Your task to perform on an android device: toggle notifications settings in the gmail app Image 0: 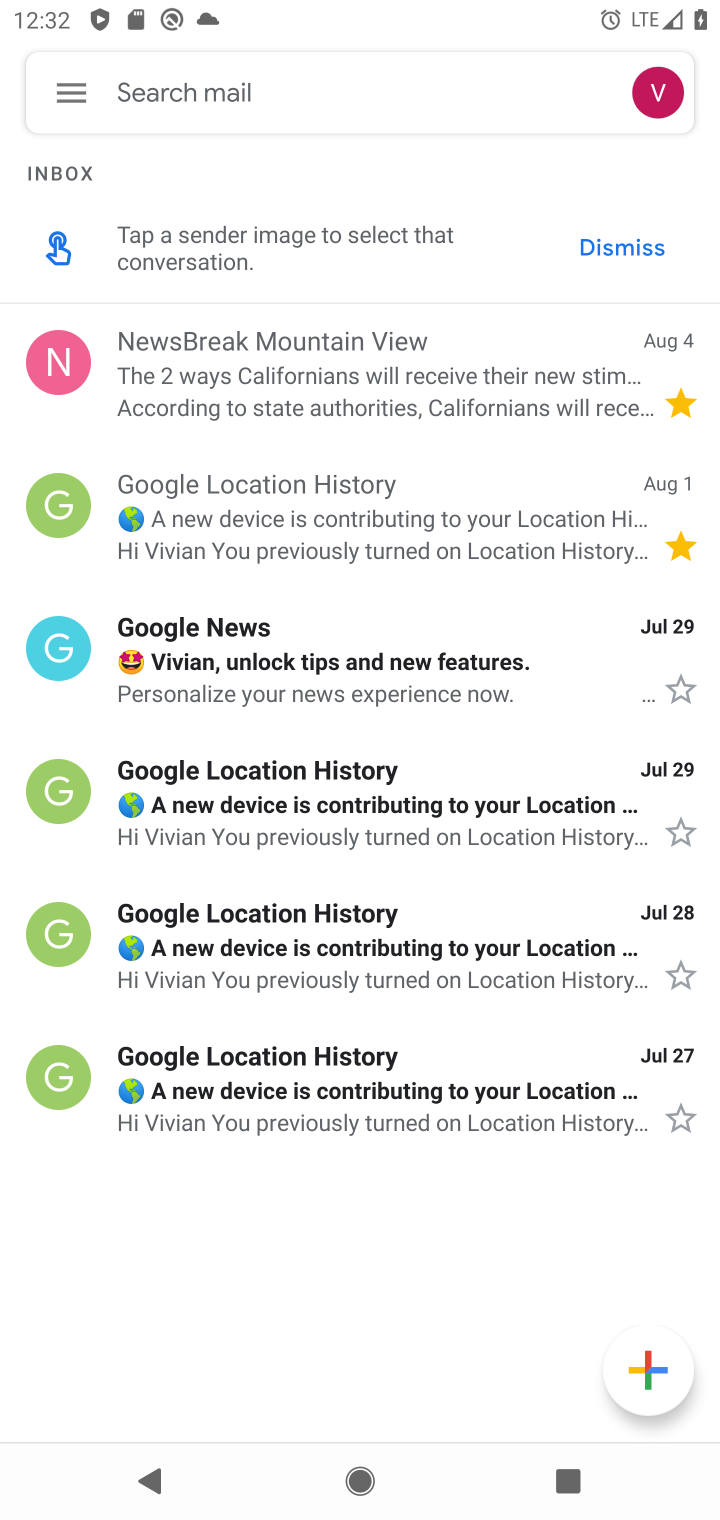
Step 0: press home button
Your task to perform on an android device: toggle notifications settings in the gmail app Image 1: 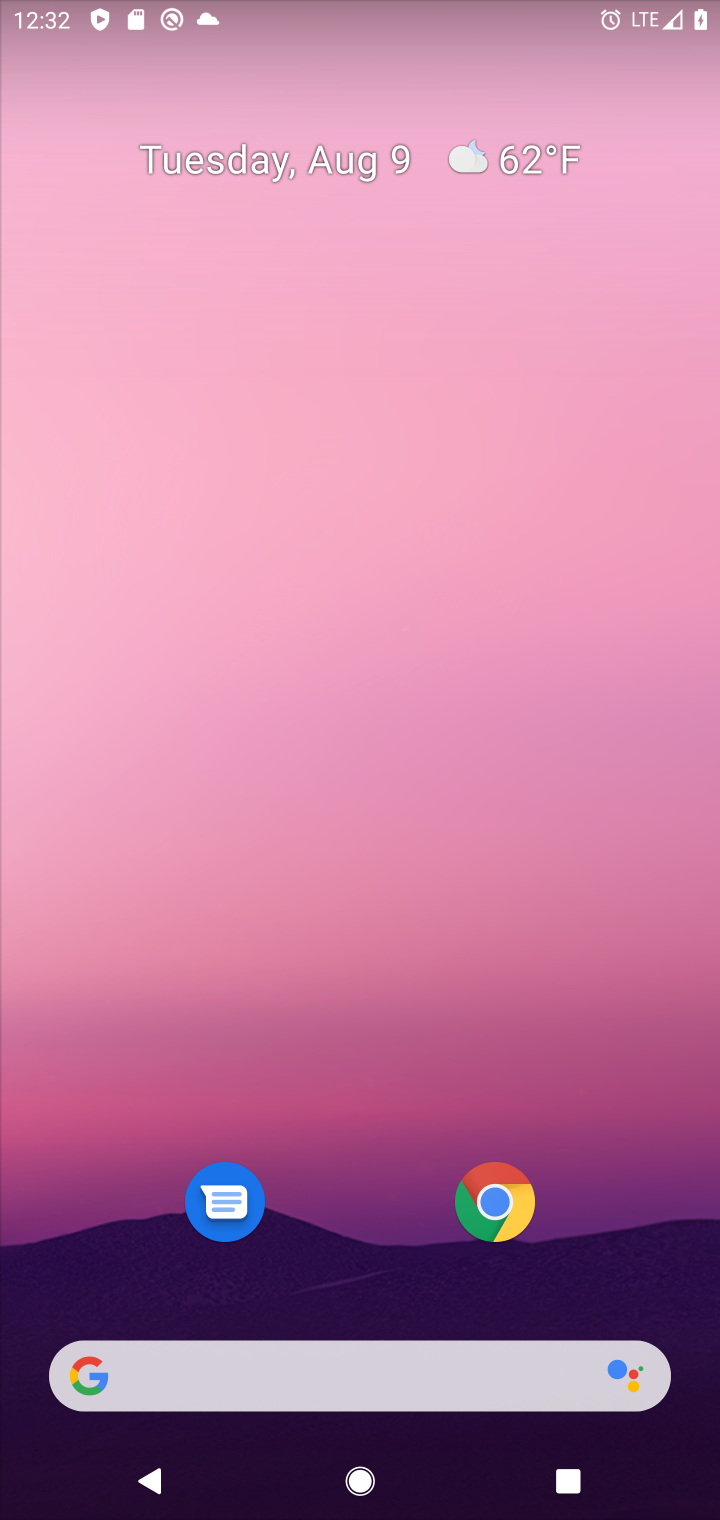
Step 1: click (499, 34)
Your task to perform on an android device: toggle notifications settings in the gmail app Image 2: 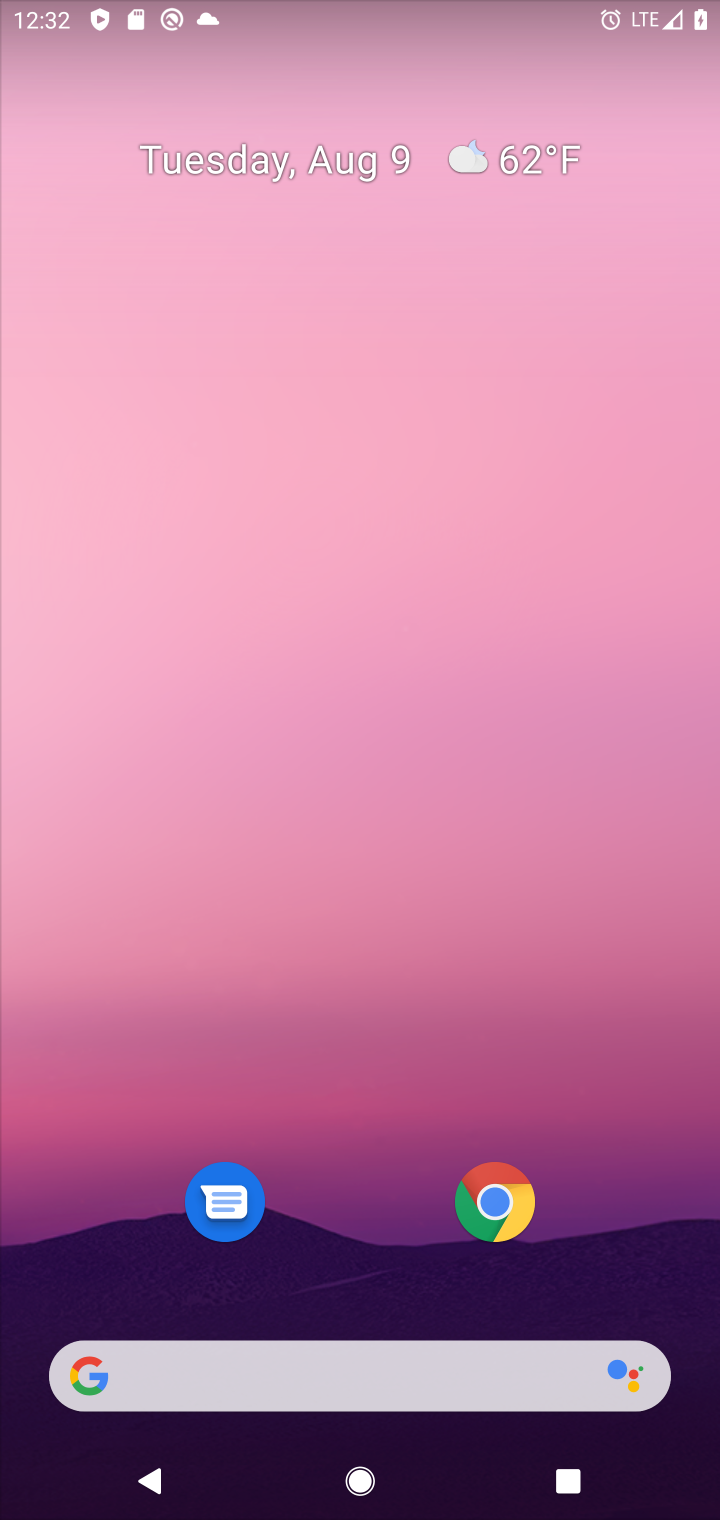
Step 2: drag from (323, 1285) to (408, 41)
Your task to perform on an android device: toggle notifications settings in the gmail app Image 3: 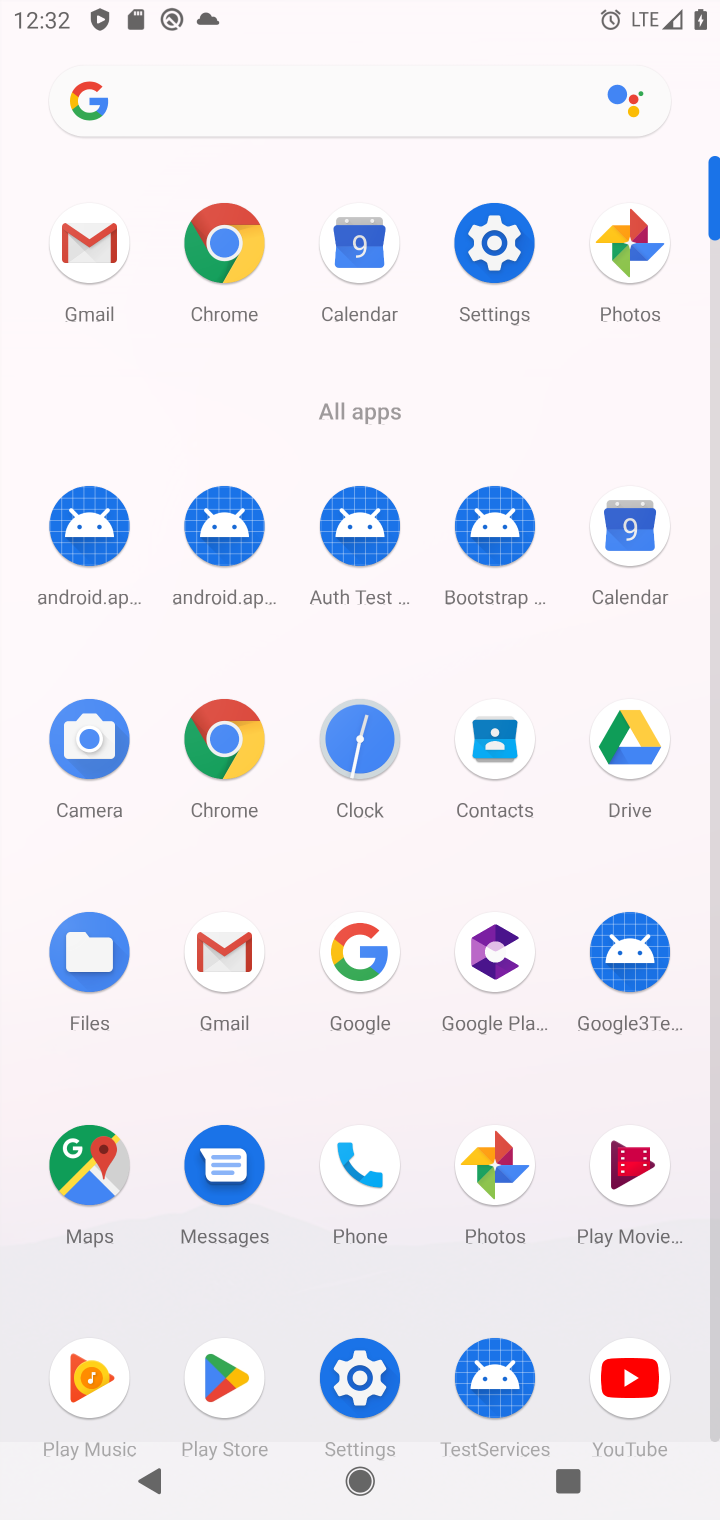
Step 3: click (222, 945)
Your task to perform on an android device: toggle notifications settings in the gmail app Image 4: 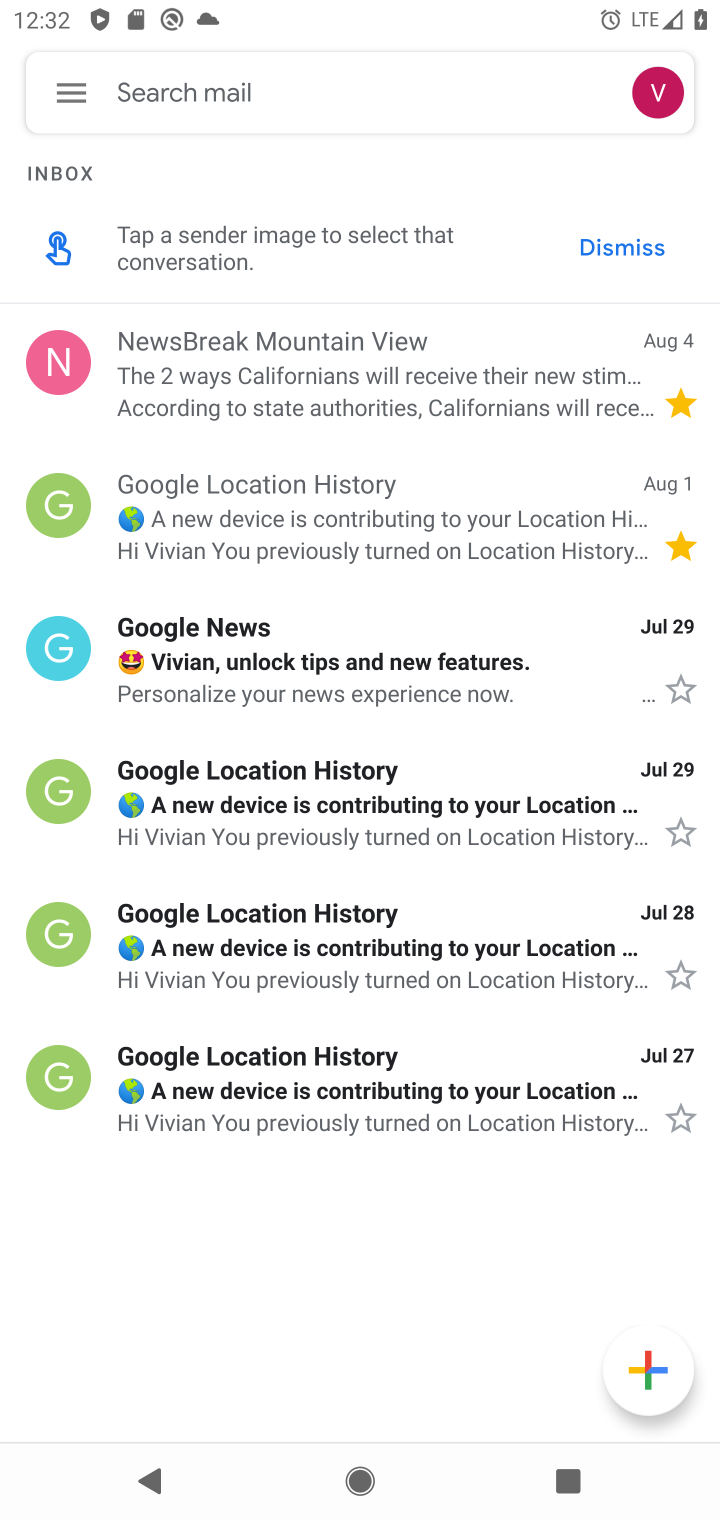
Step 4: click (74, 93)
Your task to perform on an android device: toggle notifications settings in the gmail app Image 5: 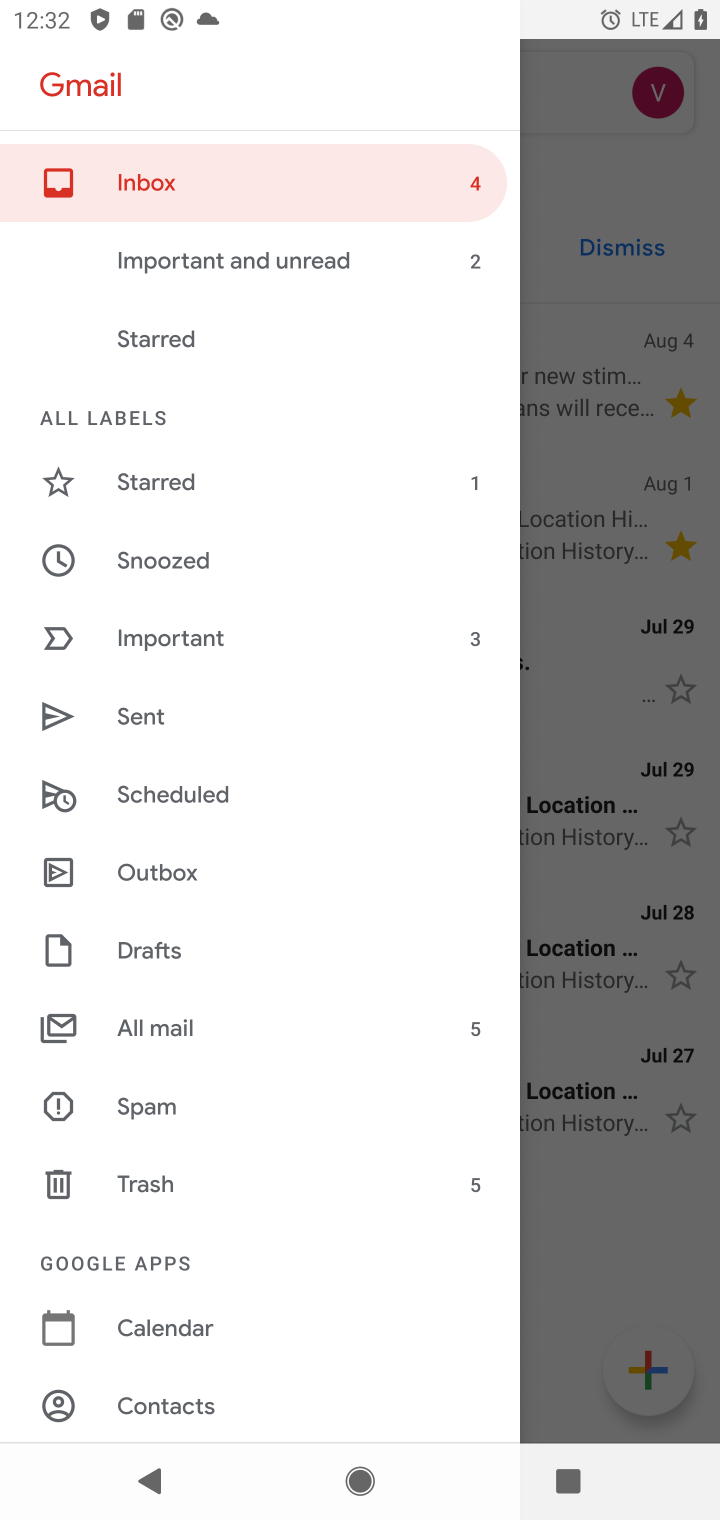
Step 5: drag from (298, 853) to (333, 693)
Your task to perform on an android device: toggle notifications settings in the gmail app Image 6: 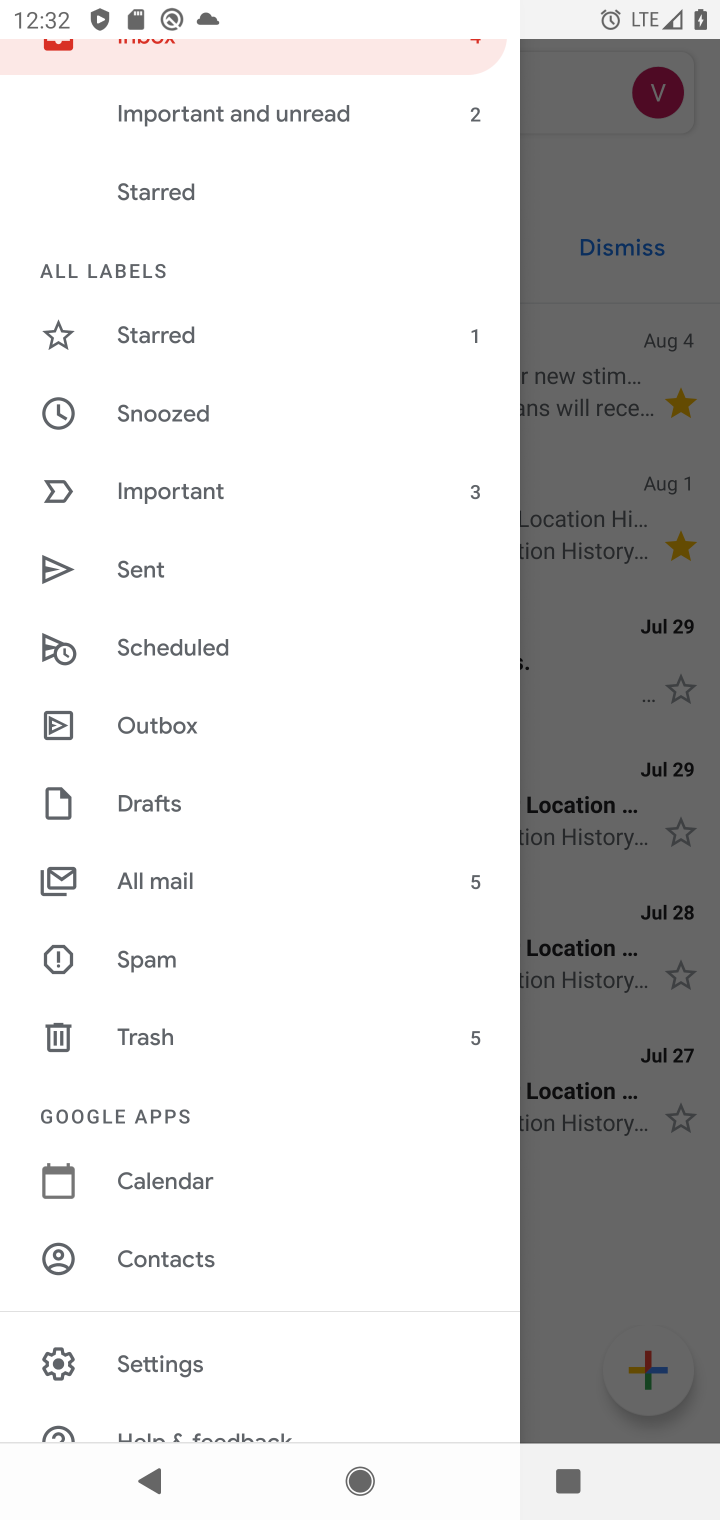
Step 6: click (160, 1363)
Your task to perform on an android device: toggle notifications settings in the gmail app Image 7: 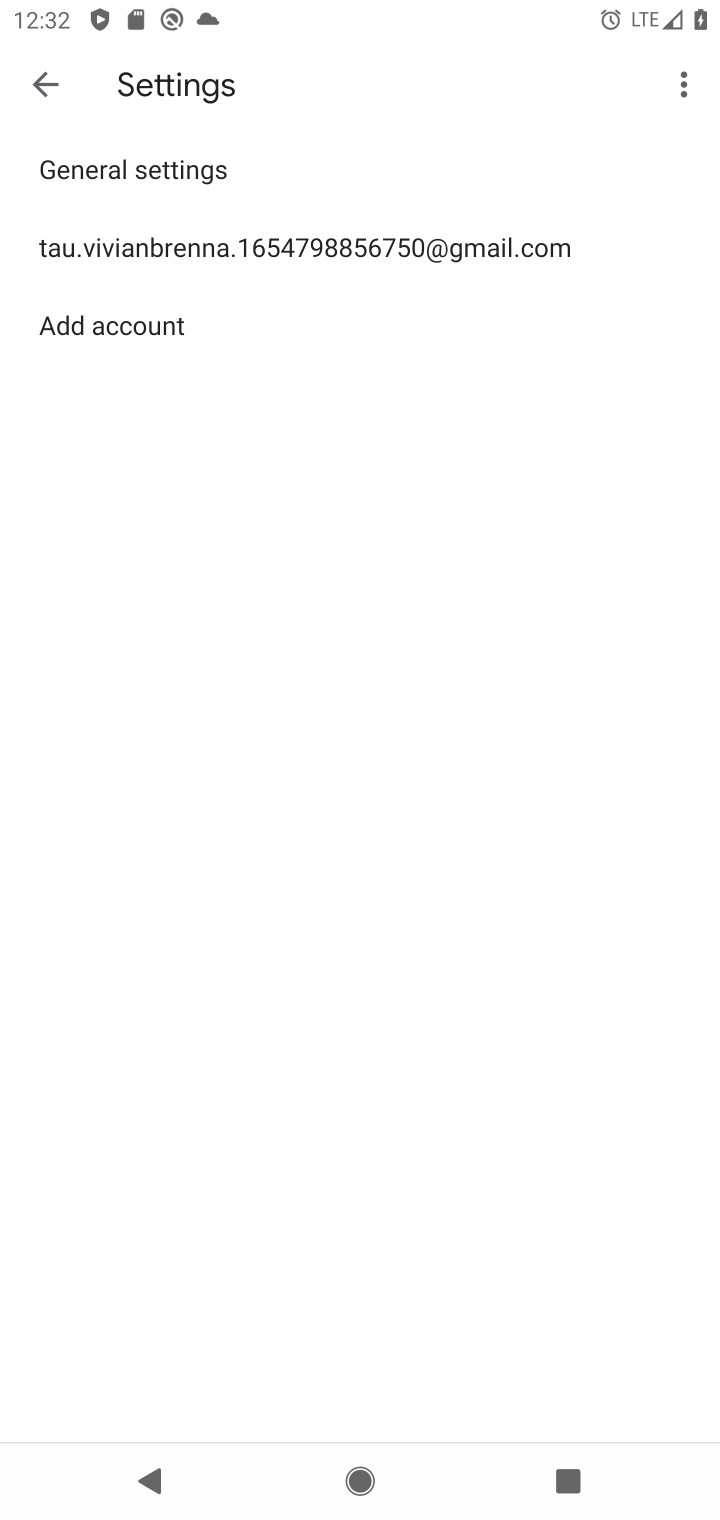
Step 7: click (274, 259)
Your task to perform on an android device: toggle notifications settings in the gmail app Image 8: 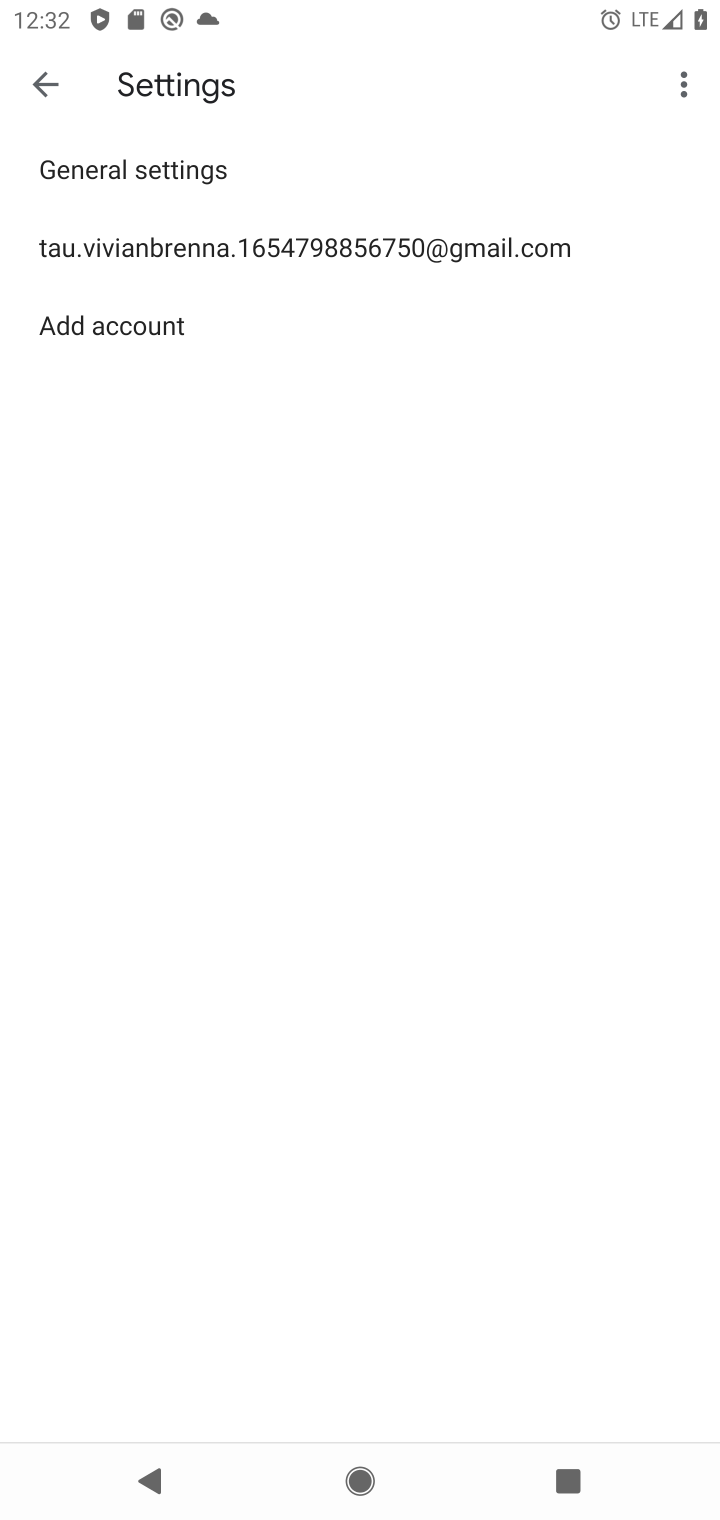
Step 8: click (274, 259)
Your task to perform on an android device: toggle notifications settings in the gmail app Image 9: 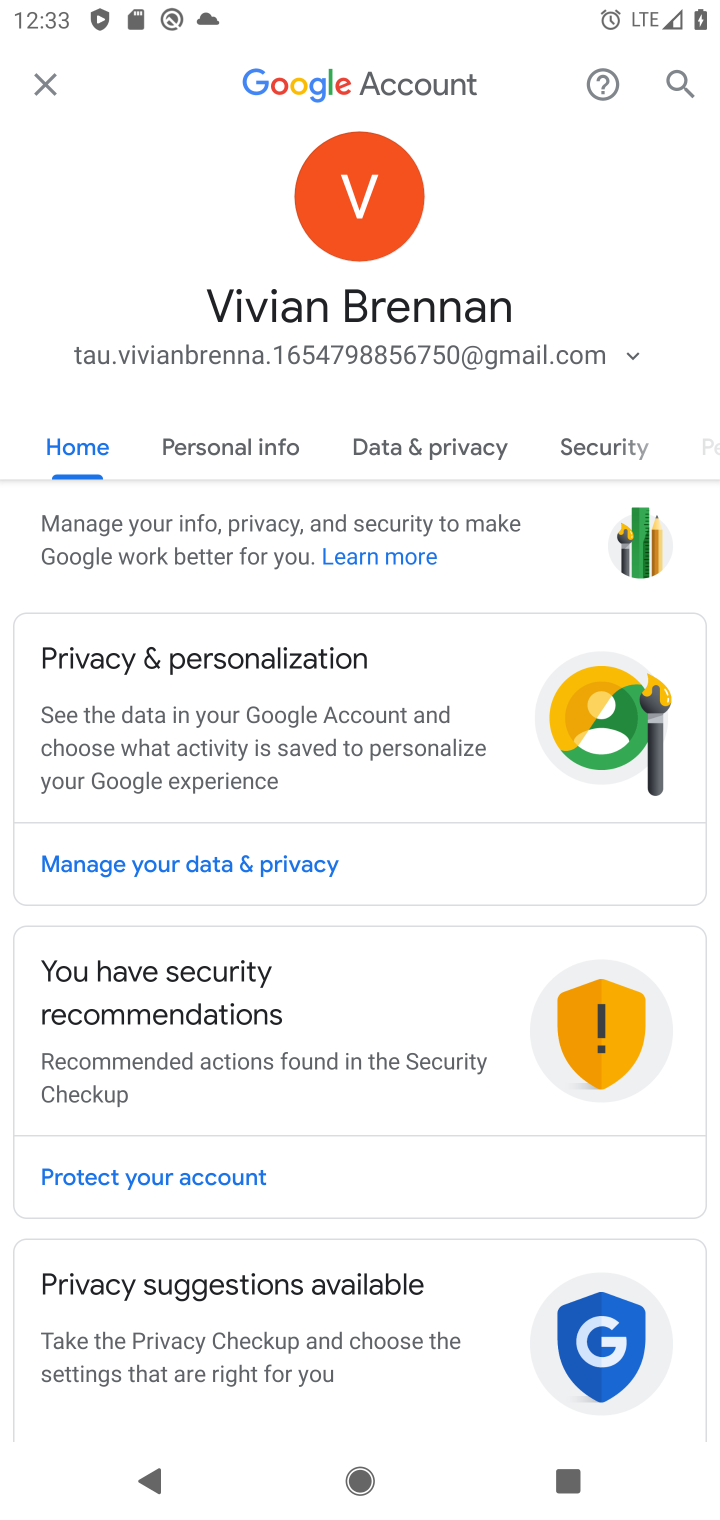
Step 9: click (42, 76)
Your task to perform on an android device: toggle notifications settings in the gmail app Image 10: 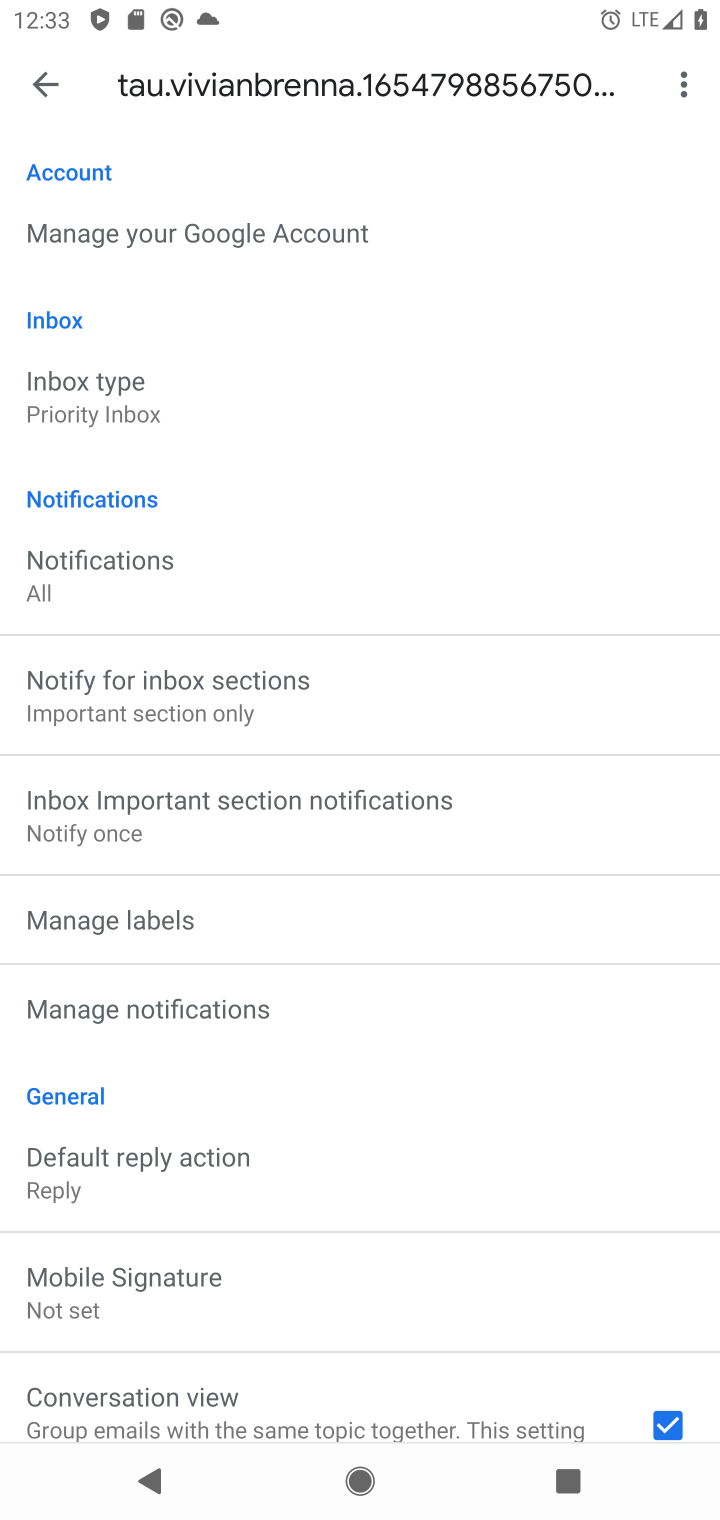
Step 10: click (156, 1002)
Your task to perform on an android device: toggle notifications settings in the gmail app Image 11: 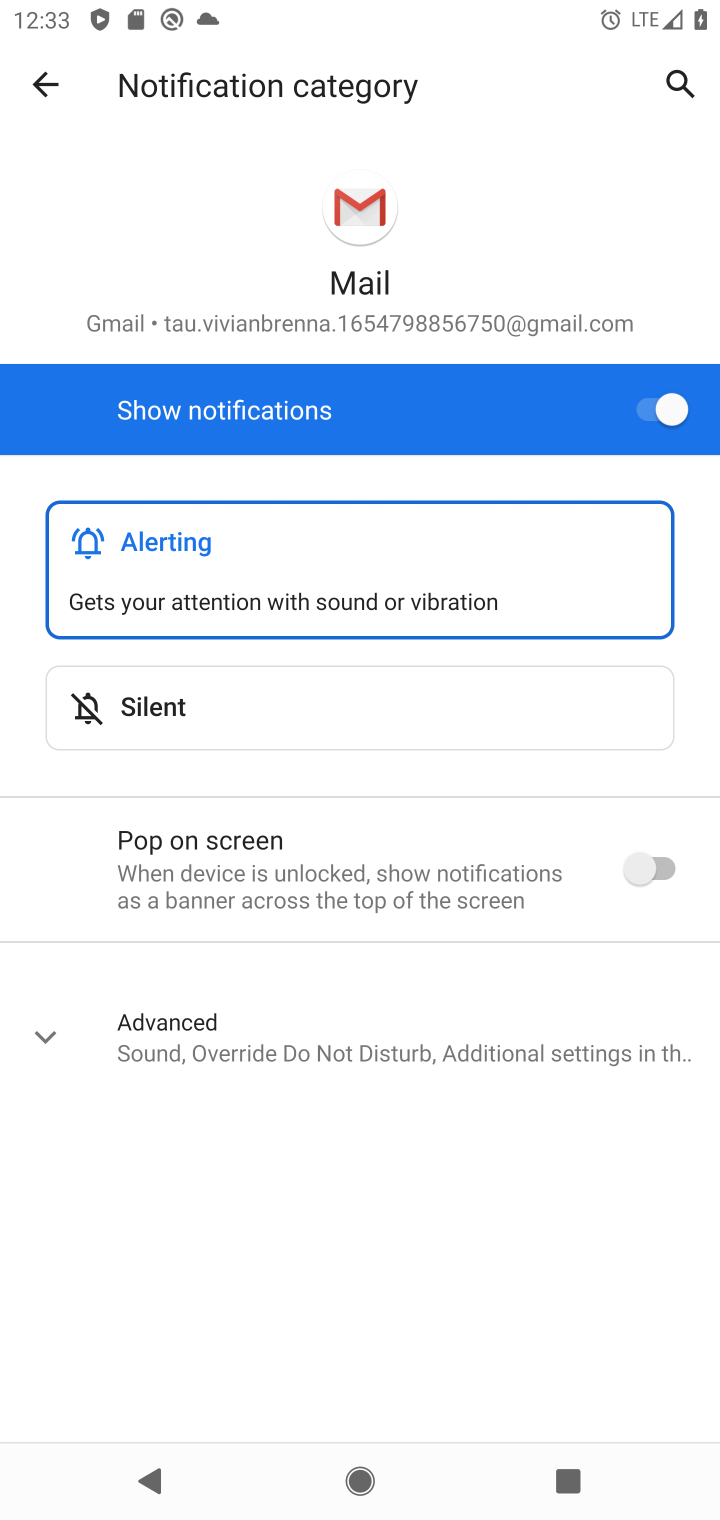
Step 11: click (641, 419)
Your task to perform on an android device: toggle notifications settings in the gmail app Image 12: 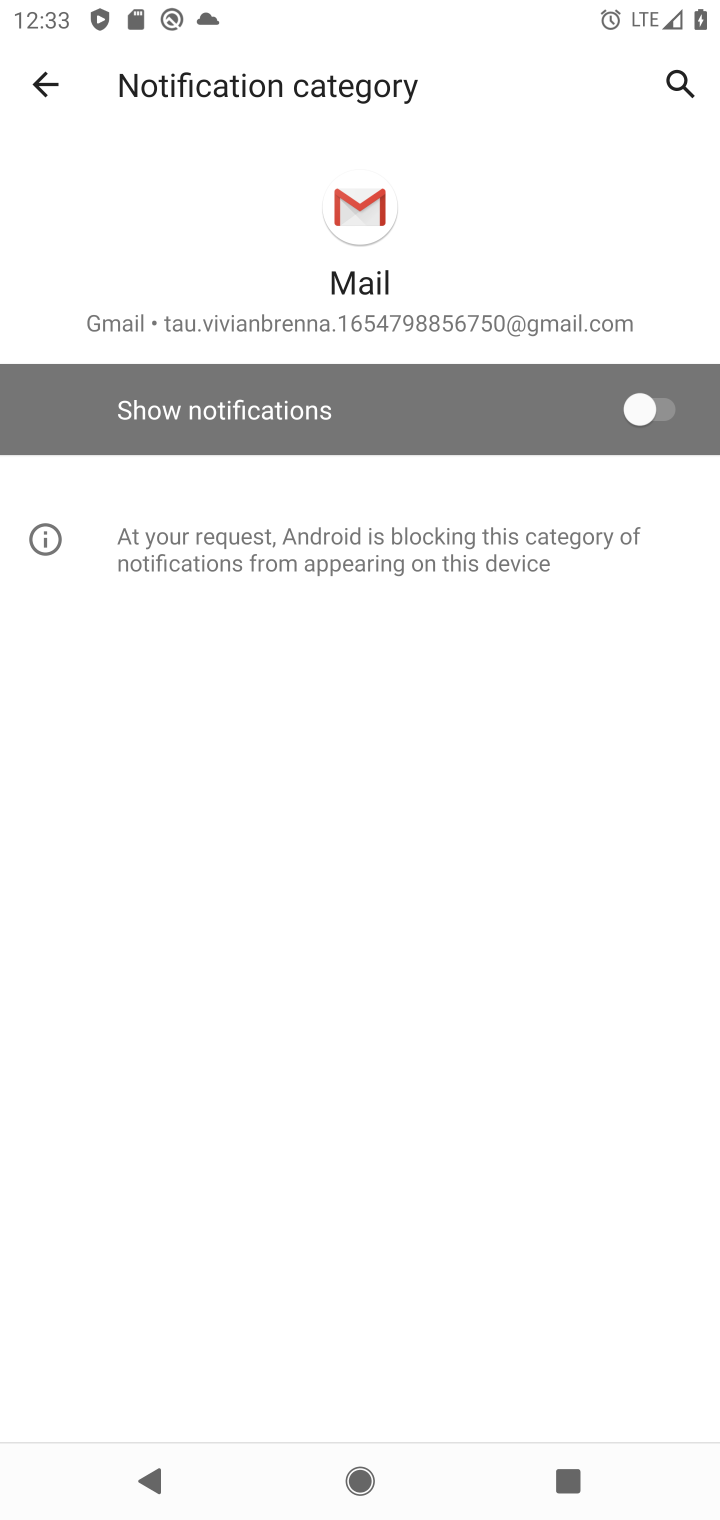
Step 12: task complete